Your task to perform on an android device: turn vacation reply on in the gmail app Image 0: 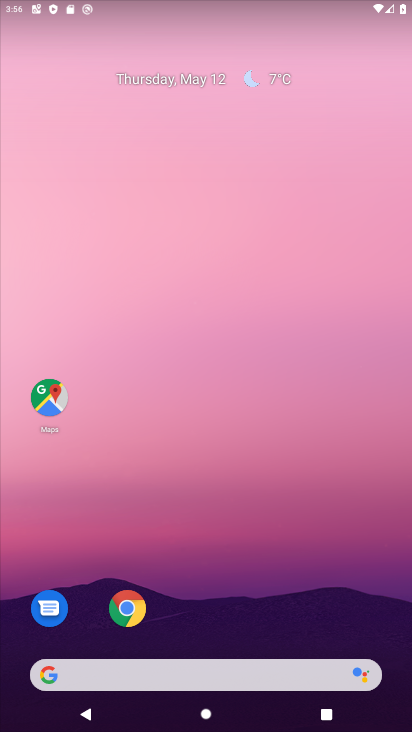
Step 0: drag from (218, 629) to (246, 93)
Your task to perform on an android device: turn vacation reply on in the gmail app Image 1: 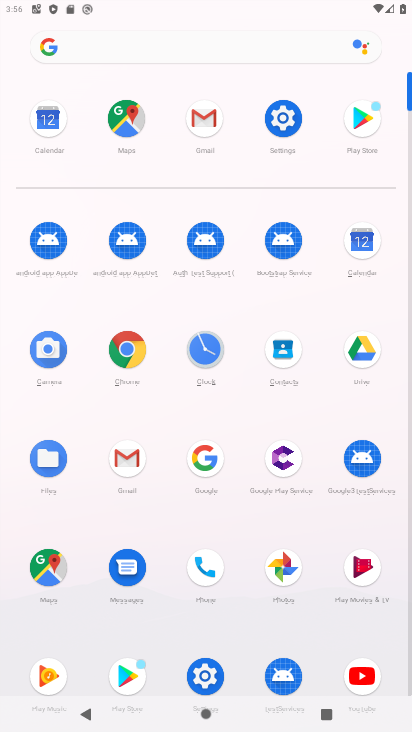
Step 1: click (210, 138)
Your task to perform on an android device: turn vacation reply on in the gmail app Image 2: 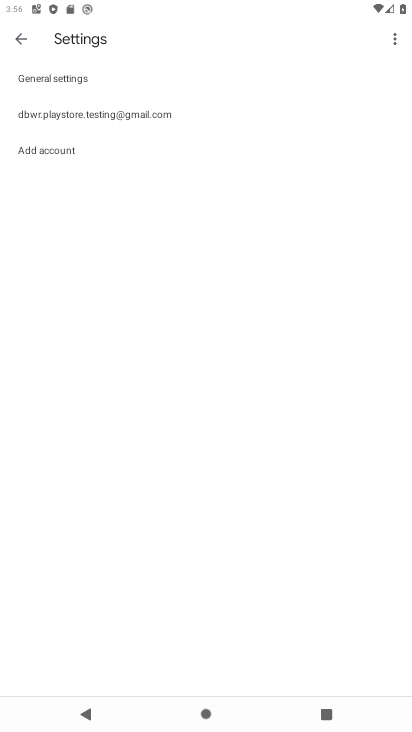
Step 2: click (165, 124)
Your task to perform on an android device: turn vacation reply on in the gmail app Image 3: 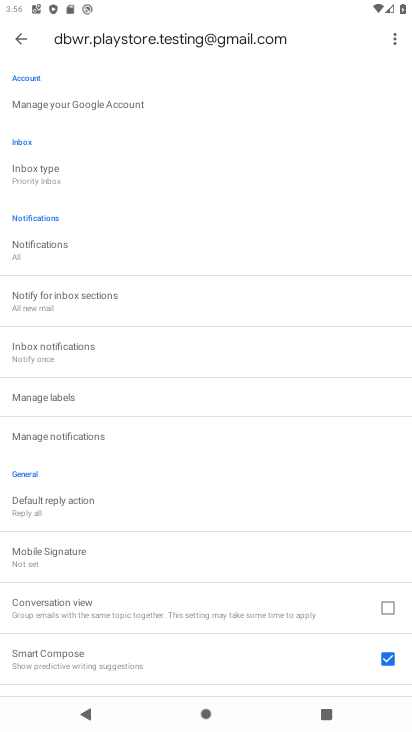
Step 3: drag from (126, 661) to (221, 120)
Your task to perform on an android device: turn vacation reply on in the gmail app Image 4: 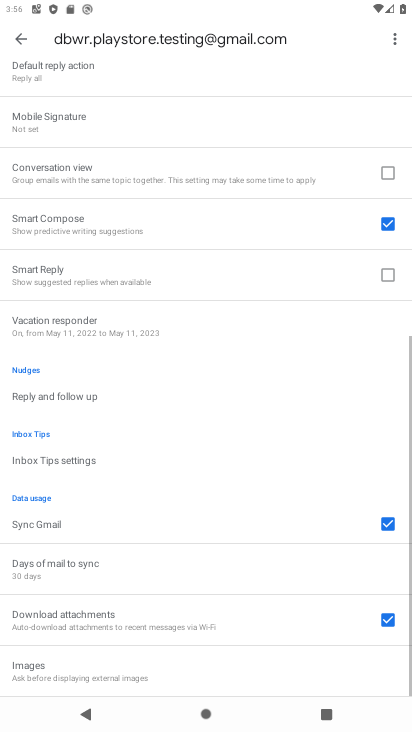
Step 4: drag from (233, 594) to (247, 130)
Your task to perform on an android device: turn vacation reply on in the gmail app Image 5: 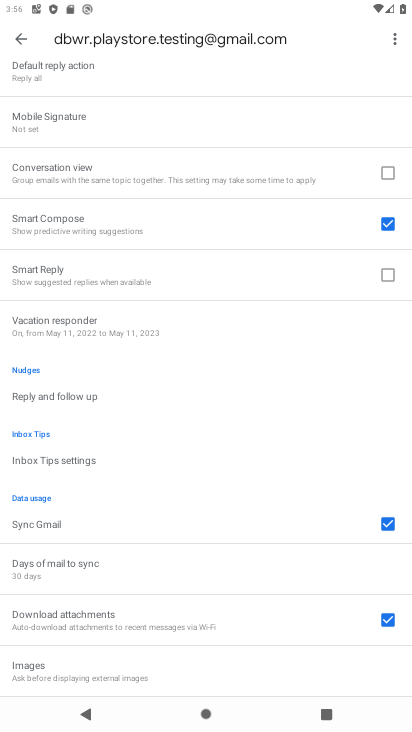
Step 5: drag from (156, 628) to (221, 295)
Your task to perform on an android device: turn vacation reply on in the gmail app Image 6: 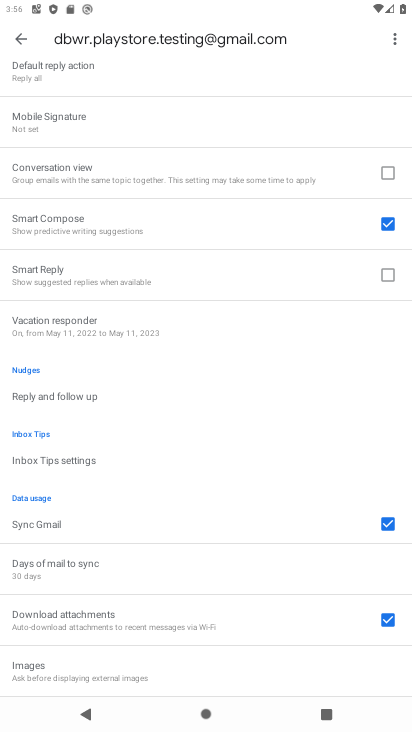
Step 6: click (136, 332)
Your task to perform on an android device: turn vacation reply on in the gmail app Image 7: 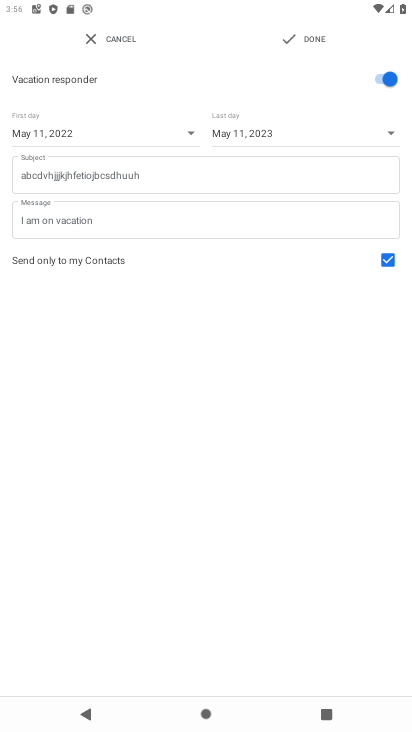
Step 7: click (334, 52)
Your task to perform on an android device: turn vacation reply on in the gmail app Image 8: 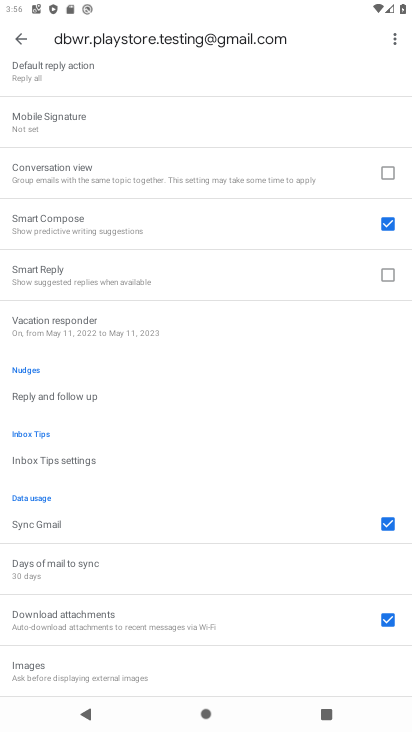
Step 8: task complete